Your task to perform on an android device: Is it going to rain today? Image 0: 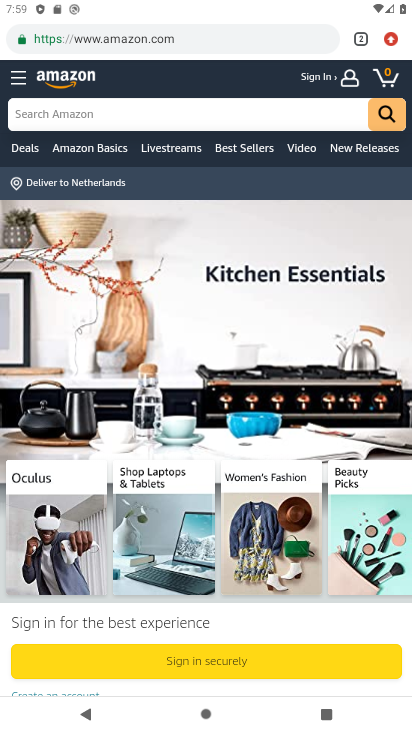
Step 0: press home button
Your task to perform on an android device: Is it going to rain today? Image 1: 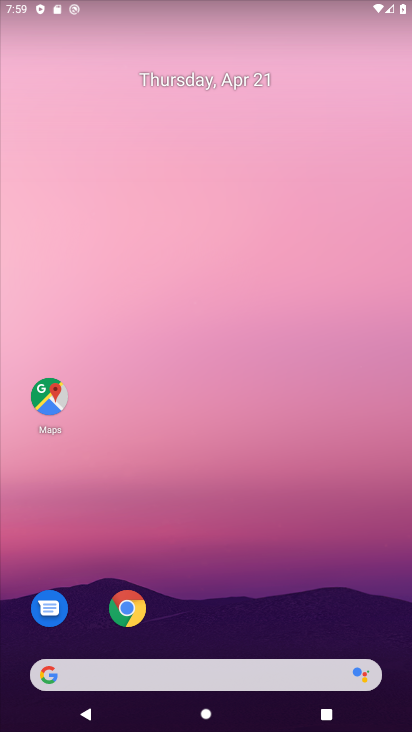
Step 1: click (178, 664)
Your task to perform on an android device: Is it going to rain today? Image 2: 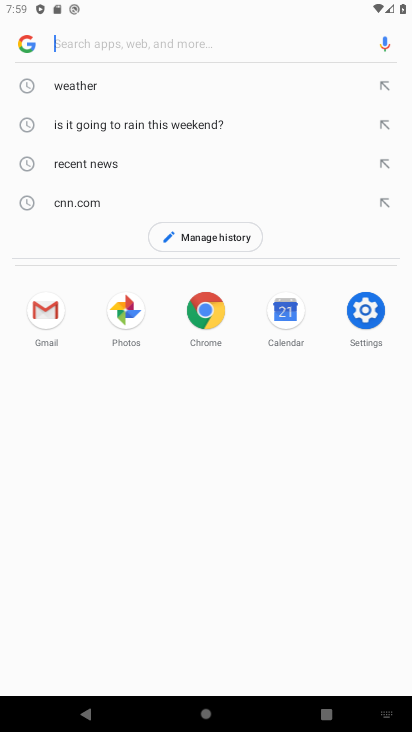
Step 2: click (85, 81)
Your task to perform on an android device: Is it going to rain today? Image 3: 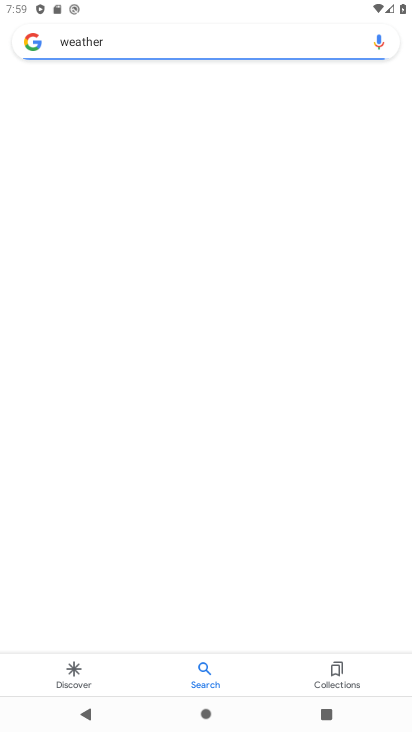
Step 3: click (19, 137)
Your task to perform on an android device: Is it going to rain today? Image 4: 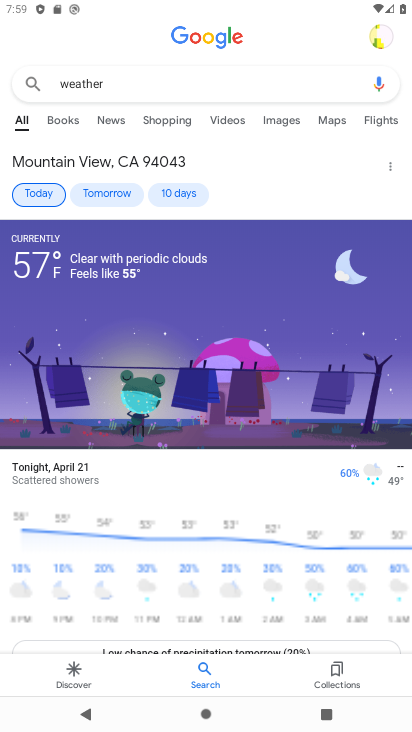
Step 4: task complete